Your task to perform on an android device: Open calendar and show me the first week of next month Image 0: 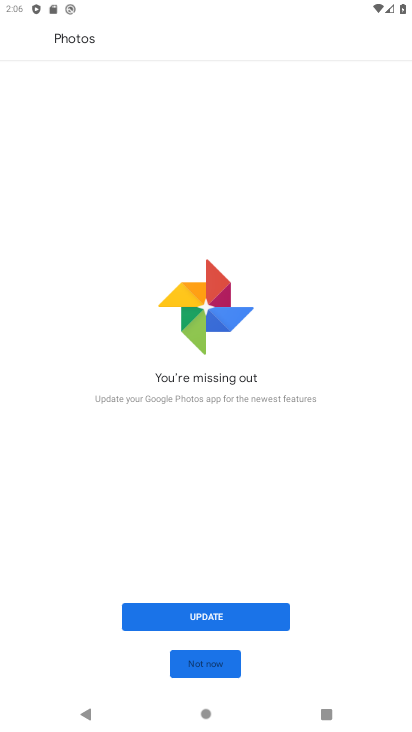
Step 0: press home button
Your task to perform on an android device: Open calendar and show me the first week of next month Image 1: 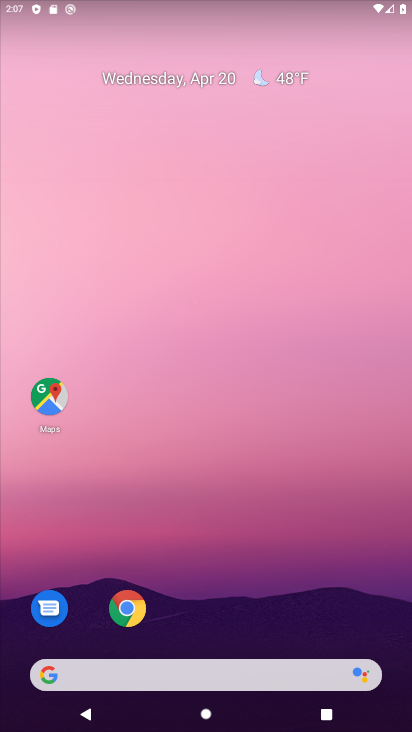
Step 1: drag from (282, 619) to (168, 109)
Your task to perform on an android device: Open calendar and show me the first week of next month Image 2: 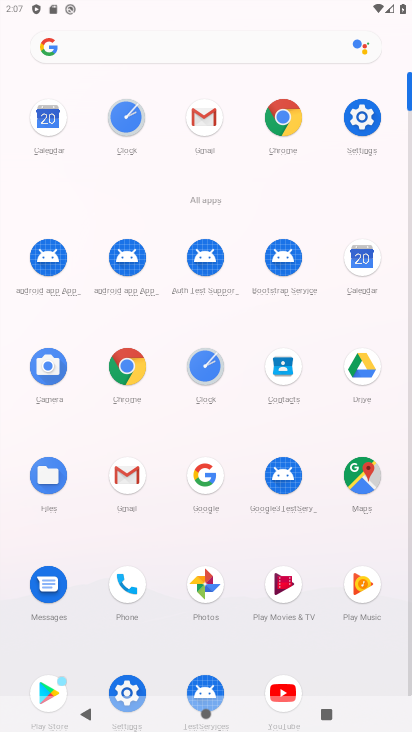
Step 2: click (346, 251)
Your task to perform on an android device: Open calendar and show me the first week of next month Image 3: 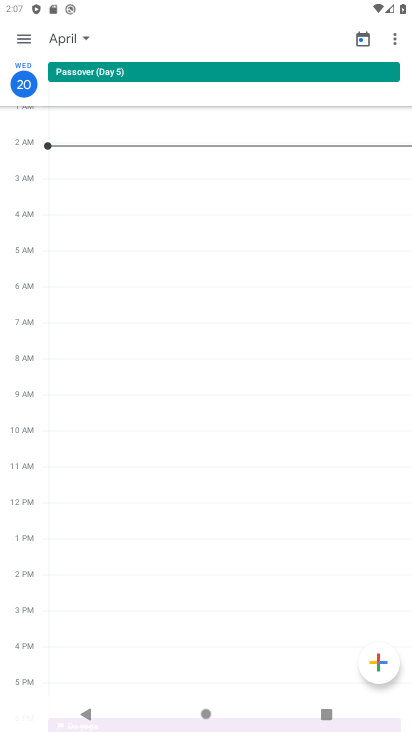
Step 3: click (52, 39)
Your task to perform on an android device: Open calendar and show me the first week of next month Image 4: 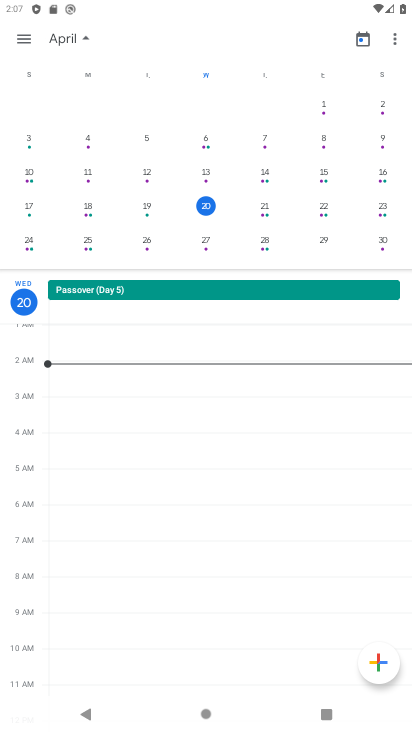
Step 4: drag from (352, 197) to (0, 142)
Your task to perform on an android device: Open calendar and show me the first week of next month Image 5: 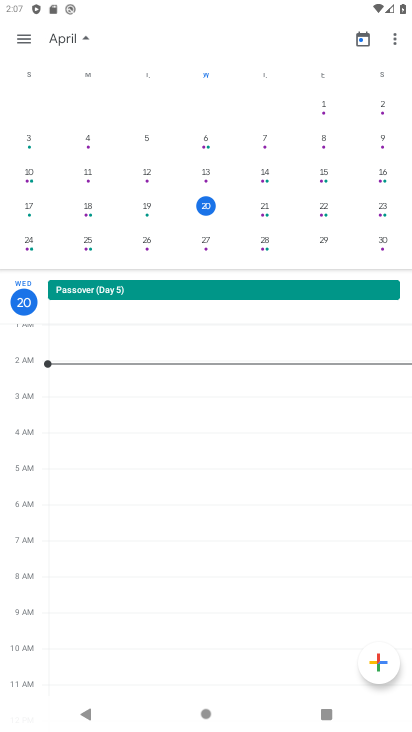
Step 5: drag from (355, 189) to (139, 170)
Your task to perform on an android device: Open calendar and show me the first week of next month Image 6: 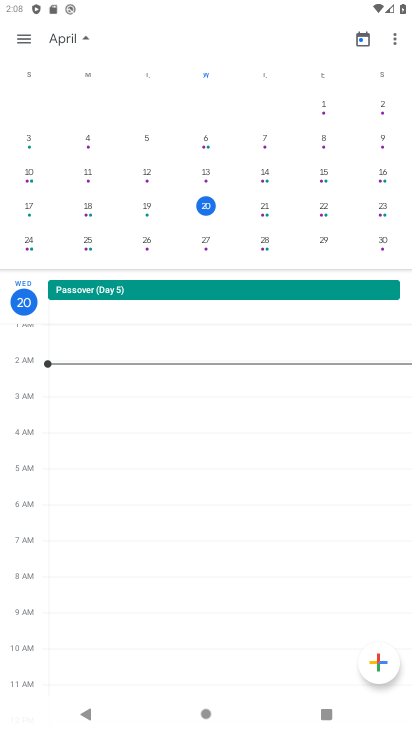
Step 6: drag from (363, 183) to (91, 123)
Your task to perform on an android device: Open calendar and show me the first week of next month Image 7: 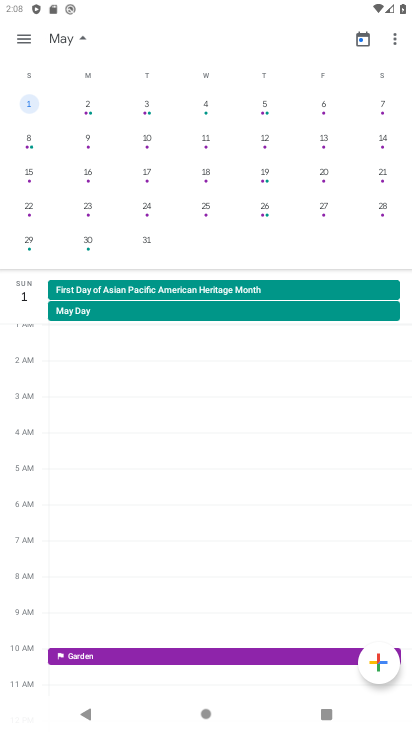
Step 7: click (199, 104)
Your task to perform on an android device: Open calendar and show me the first week of next month Image 8: 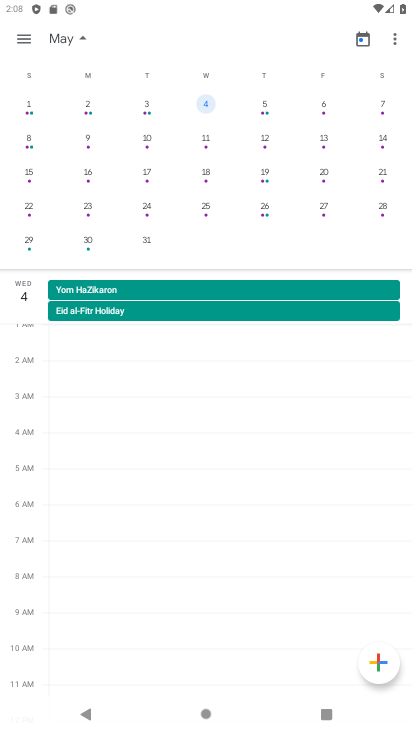
Step 8: task complete